Your task to perform on an android device: install app "Truecaller" Image 0: 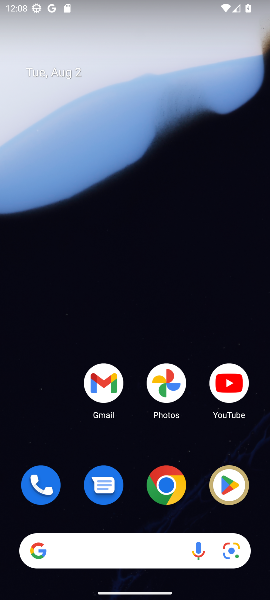
Step 0: click (232, 485)
Your task to perform on an android device: install app "Truecaller" Image 1: 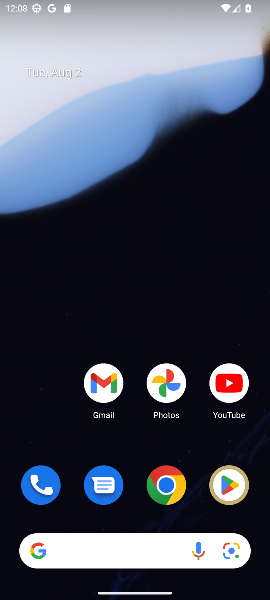
Step 1: click (232, 485)
Your task to perform on an android device: install app "Truecaller" Image 2: 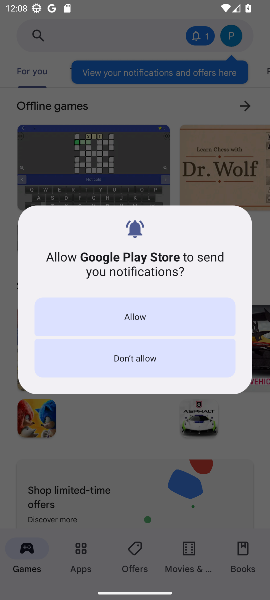
Step 2: press home button
Your task to perform on an android device: install app "Truecaller" Image 3: 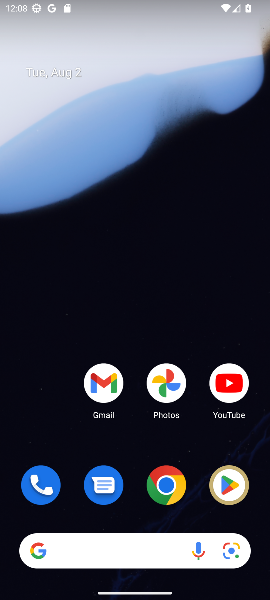
Step 3: click (236, 492)
Your task to perform on an android device: install app "Truecaller" Image 4: 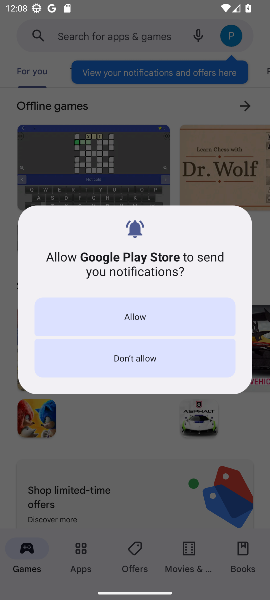
Step 4: click (125, 360)
Your task to perform on an android device: install app "Truecaller" Image 5: 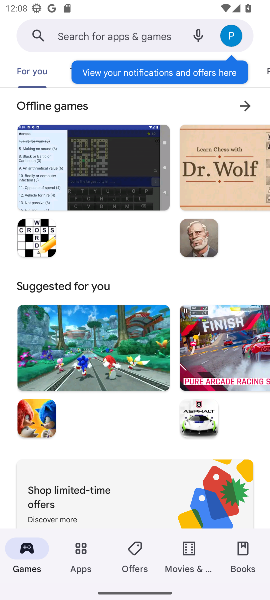
Step 5: click (104, 35)
Your task to perform on an android device: install app "Truecaller" Image 6: 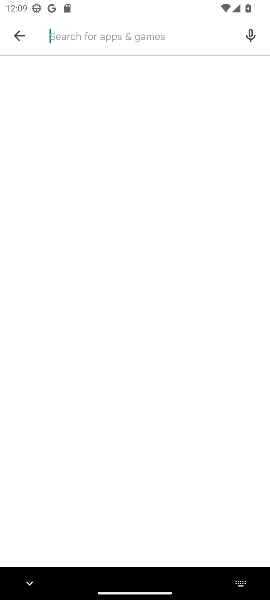
Step 6: type "truecaller"
Your task to perform on an android device: install app "Truecaller" Image 7: 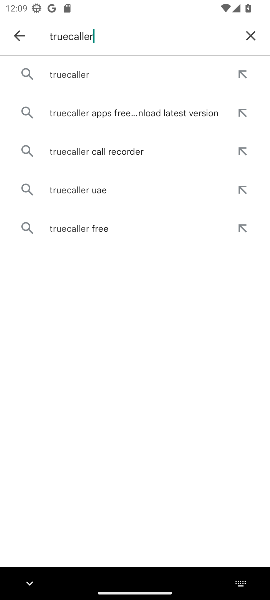
Step 7: click (74, 65)
Your task to perform on an android device: install app "Truecaller" Image 8: 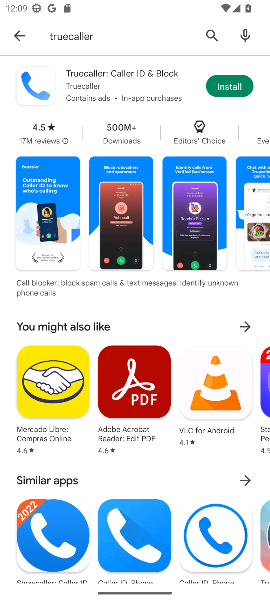
Step 8: click (222, 79)
Your task to perform on an android device: install app "Truecaller" Image 9: 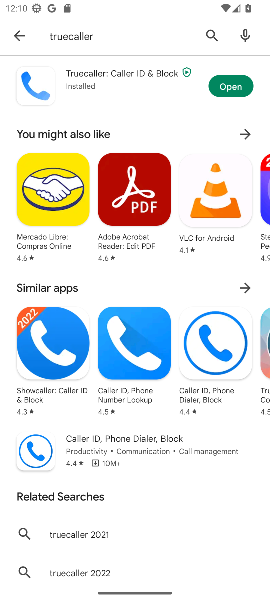
Step 9: task complete